Your task to perform on an android device: Open the calendar and show me this week's events Image 0: 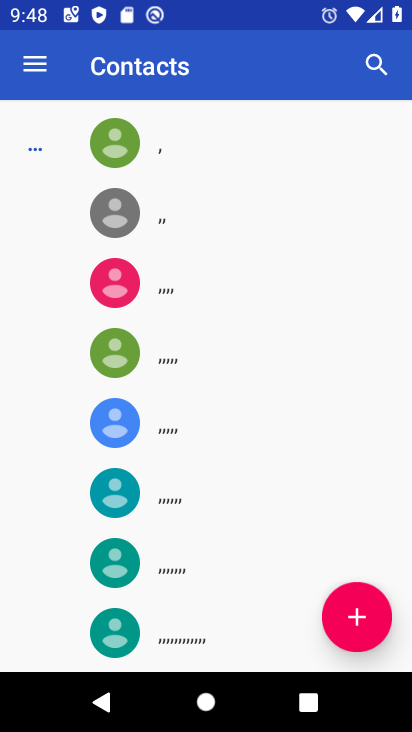
Step 0: press home button
Your task to perform on an android device: Open the calendar and show me this week's events Image 1: 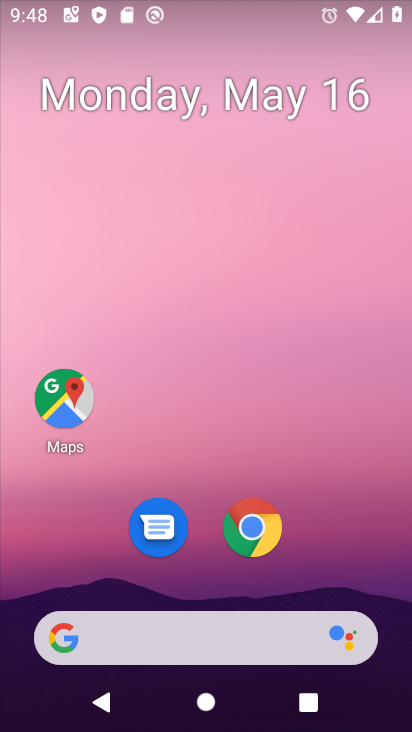
Step 1: drag from (344, 586) to (337, 0)
Your task to perform on an android device: Open the calendar and show me this week's events Image 2: 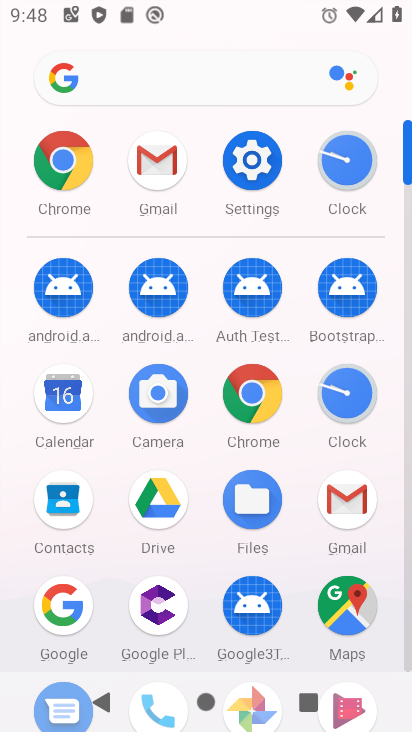
Step 2: click (60, 391)
Your task to perform on an android device: Open the calendar and show me this week's events Image 3: 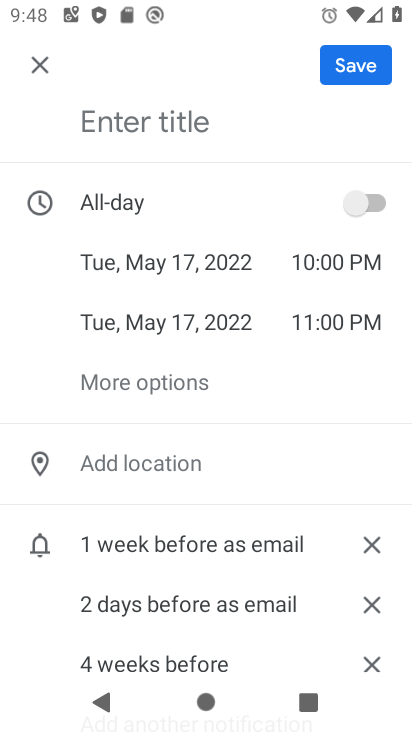
Step 3: click (37, 68)
Your task to perform on an android device: Open the calendar and show me this week's events Image 4: 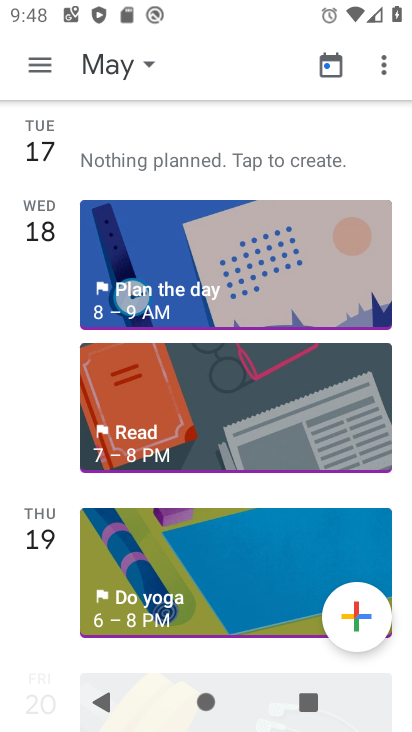
Step 4: click (31, 64)
Your task to perform on an android device: Open the calendar and show me this week's events Image 5: 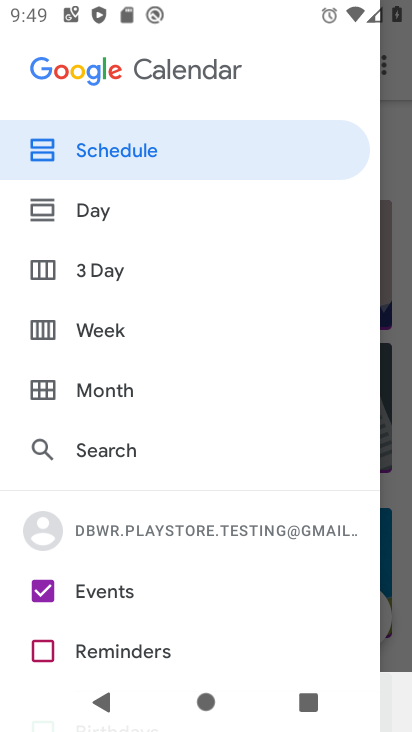
Step 5: click (37, 331)
Your task to perform on an android device: Open the calendar and show me this week's events Image 6: 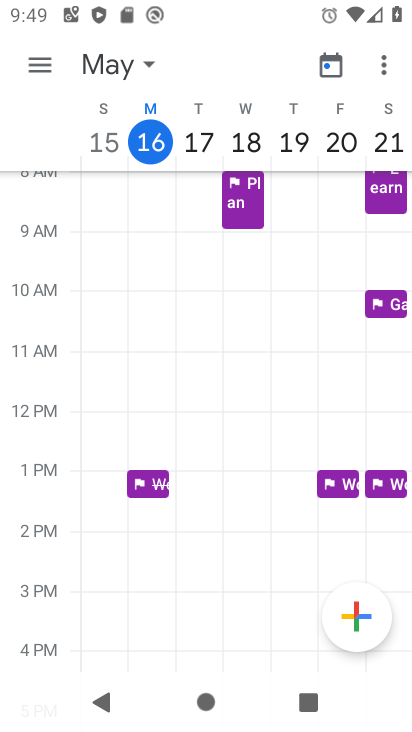
Step 6: task complete